Your task to perform on an android device: move a message to another label in the gmail app Image 0: 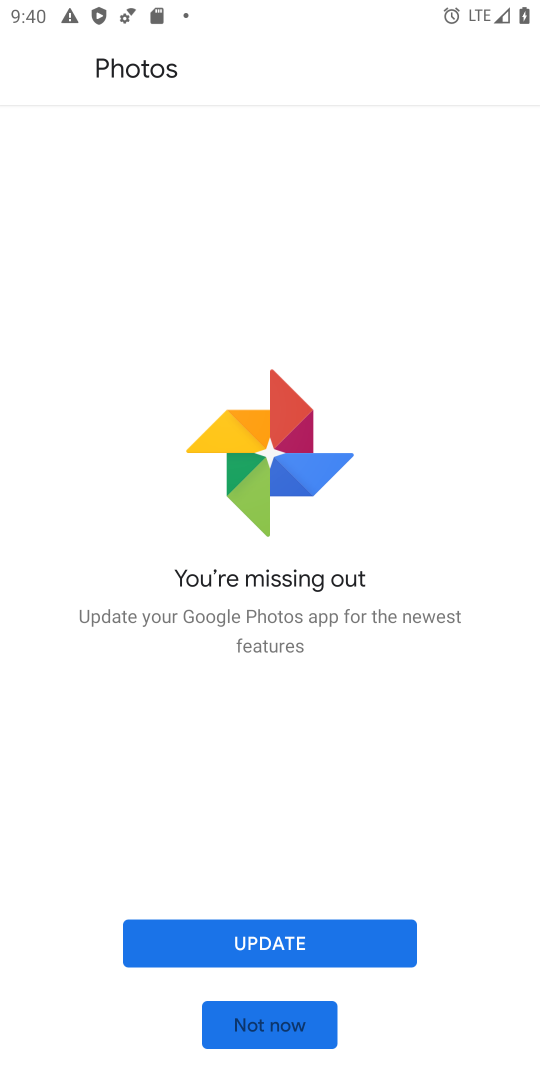
Step 0: press home button
Your task to perform on an android device: move a message to another label in the gmail app Image 1: 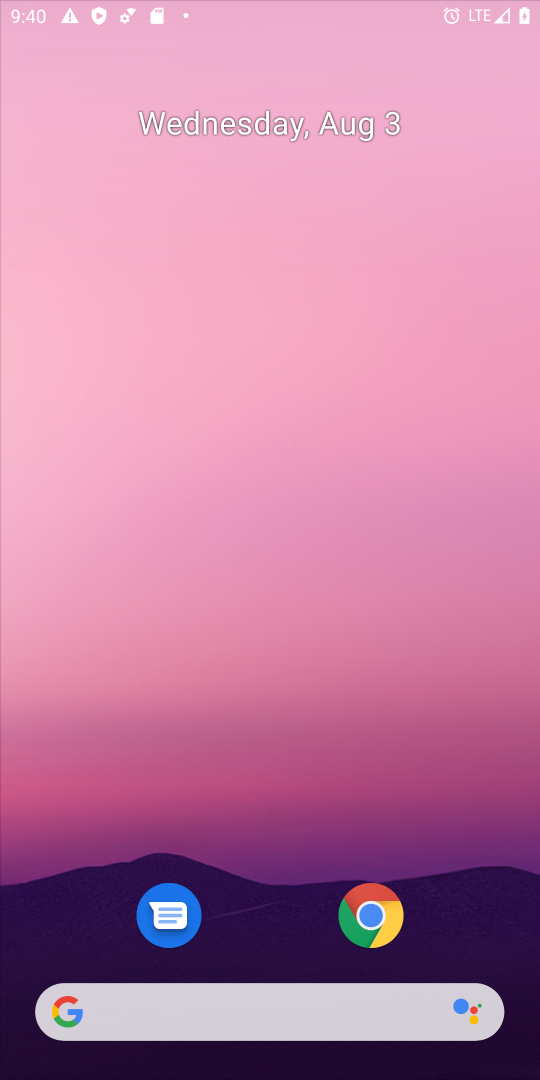
Step 1: drag from (365, 999) to (435, 329)
Your task to perform on an android device: move a message to another label in the gmail app Image 2: 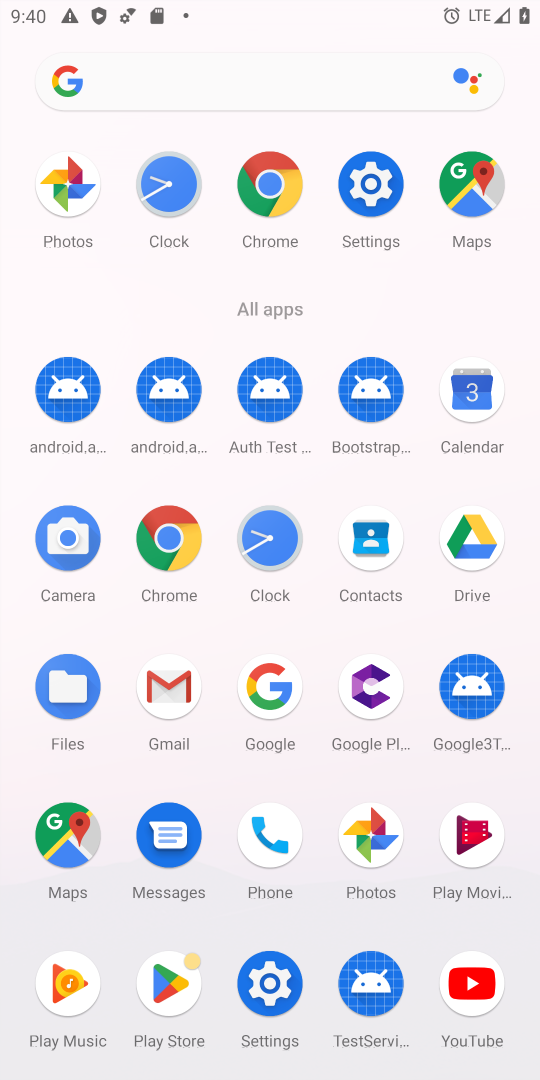
Step 2: click (147, 690)
Your task to perform on an android device: move a message to another label in the gmail app Image 3: 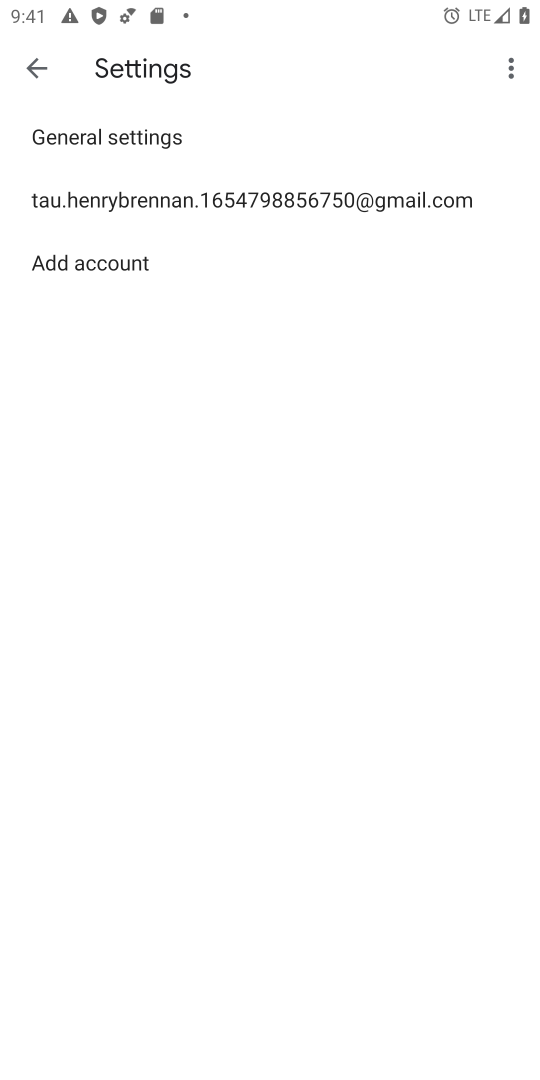
Step 3: click (57, 78)
Your task to perform on an android device: move a message to another label in the gmail app Image 4: 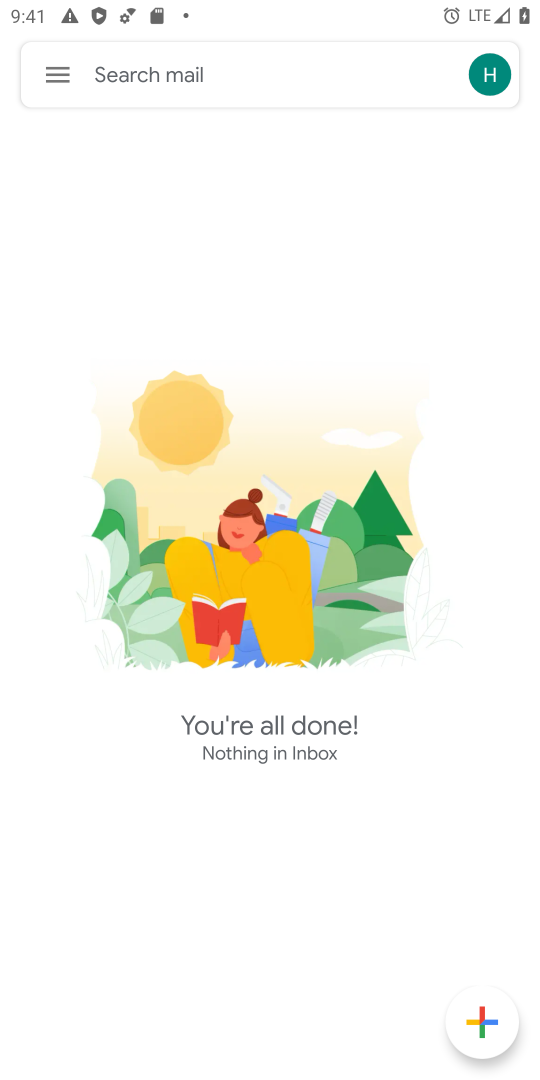
Step 4: task complete